Your task to perform on an android device: move a message to another label in the gmail app Image 0: 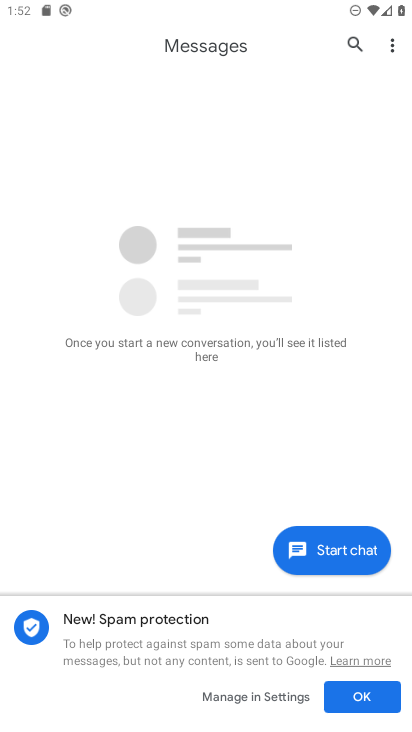
Step 0: press home button
Your task to perform on an android device: move a message to another label in the gmail app Image 1: 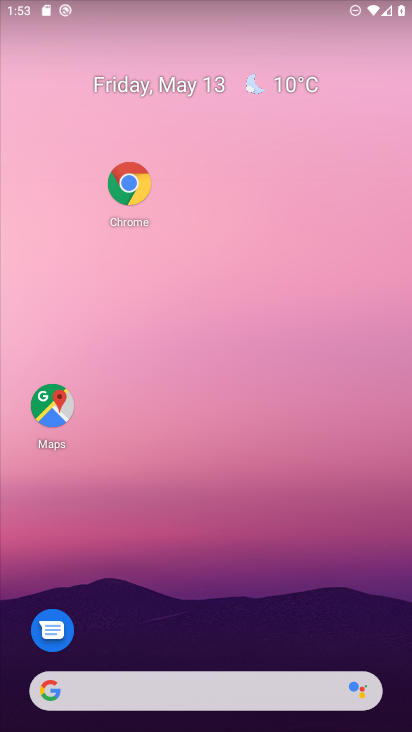
Step 1: drag from (233, 692) to (197, 197)
Your task to perform on an android device: move a message to another label in the gmail app Image 2: 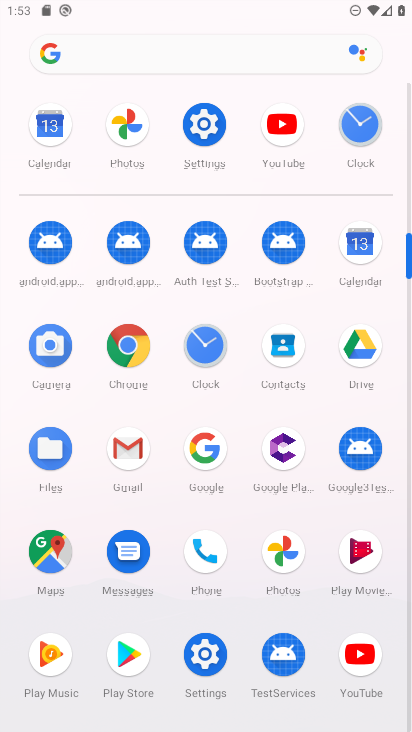
Step 2: click (131, 443)
Your task to perform on an android device: move a message to another label in the gmail app Image 3: 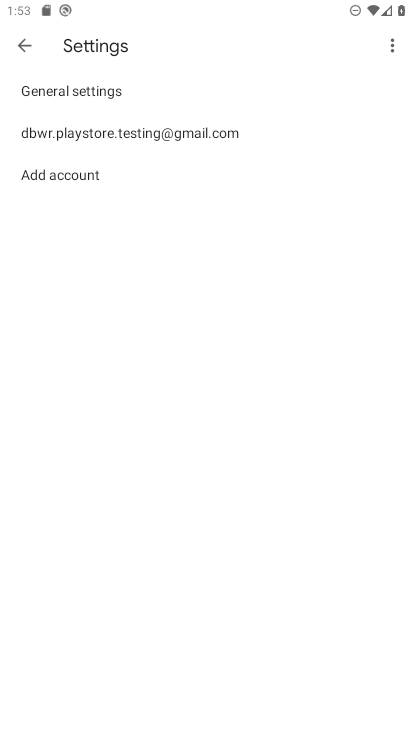
Step 3: click (32, 47)
Your task to perform on an android device: move a message to another label in the gmail app Image 4: 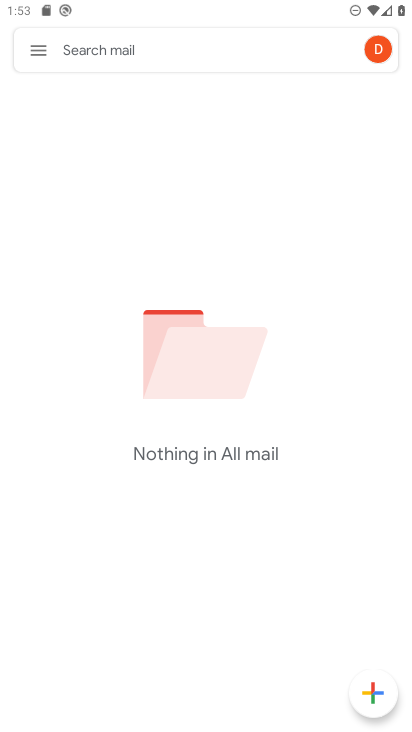
Step 4: click (43, 51)
Your task to perform on an android device: move a message to another label in the gmail app Image 5: 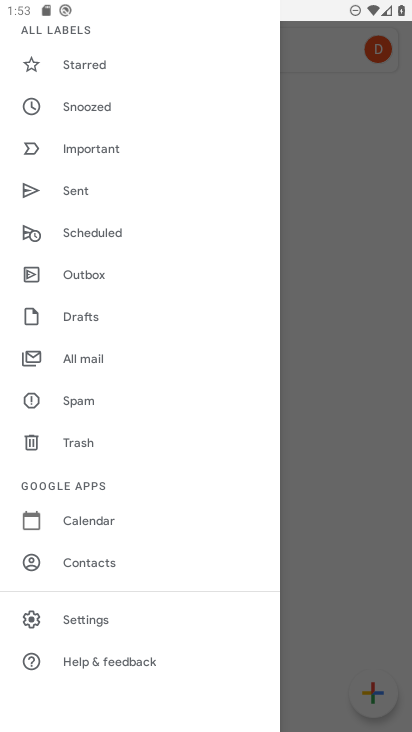
Step 5: click (94, 354)
Your task to perform on an android device: move a message to another label in the gmail app Image 6: 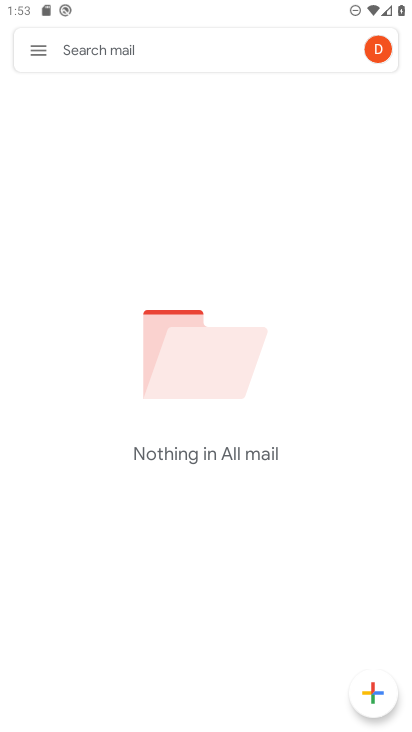
Step 6: task complete